Your task to perform on an android device: turn vacation reply on in the gmail app Image 0: 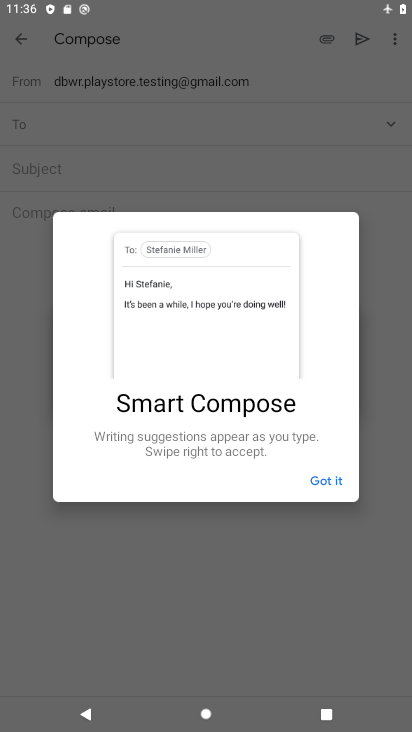
Step 0: press home button
Your task to perform on an android device: turn vacation reply on in the gmail app Image 1: 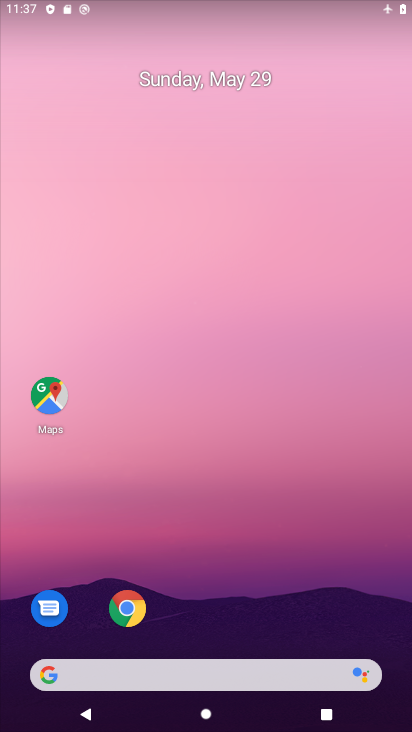
Step 1: drag from (209, 638) to (337, 68)
Your task to perform on an android device: turn vacation reply on in the gmail app Image 2: 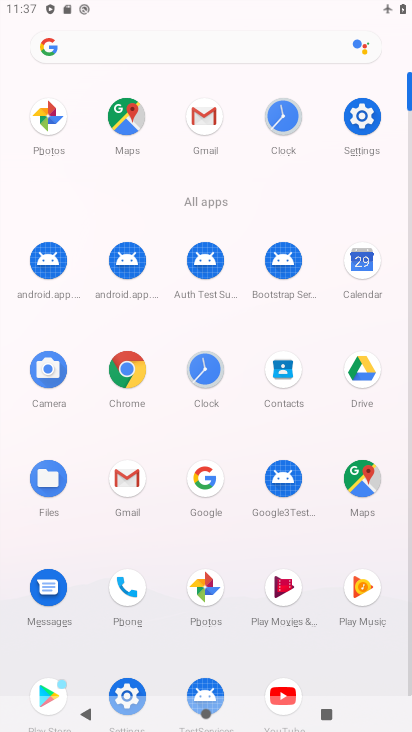
Step 2: click (120, 485)
Your task to perform on an android device: turn vacation reply on in the gmail app Image 3: 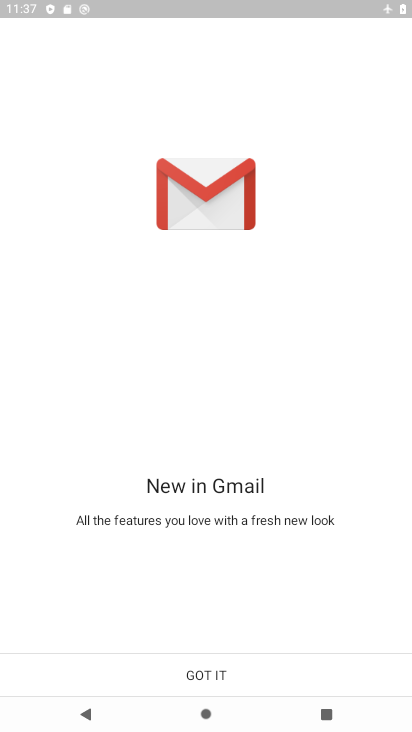
Step 3: click (148, 659)
Your task to perform on an android device: turn vacation reply on in the gmail app Image 4: 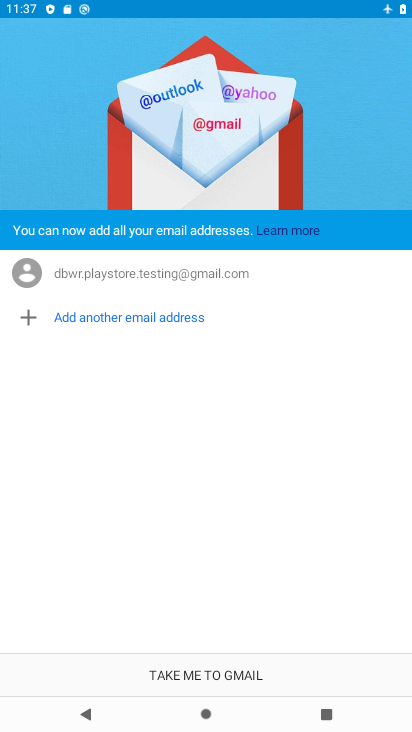
Step 4: click (237, 672)
Your task to perform on an android device: turn vacation reply on in the gmail app Image 5: 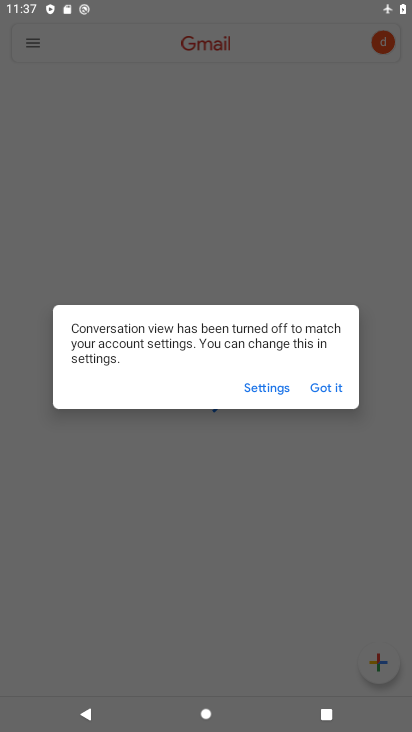
Step 5: click (335, 387)
Your task to perform on an android device: turn vacation reply on in the gmail app Image 6: 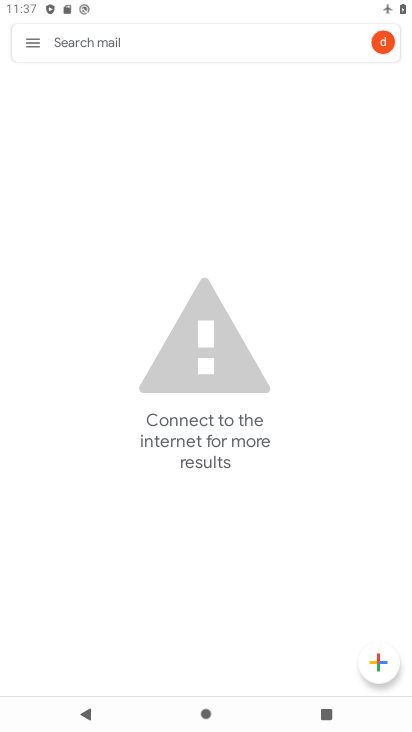
Step 6: click (26, 38)
Your task to perform on an android device: turn vacation reply on in the gmail app Image 7: 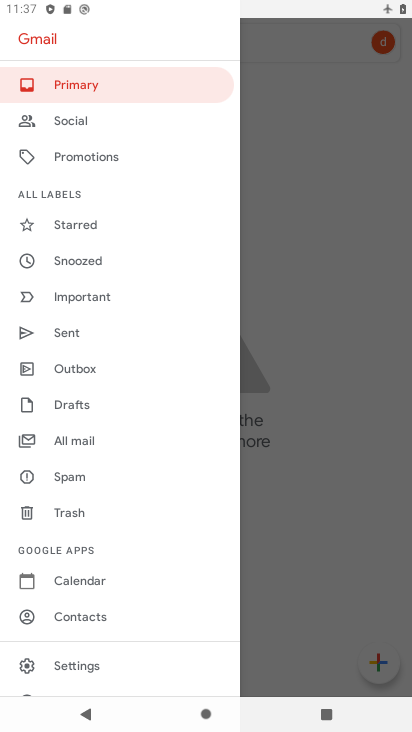
Step 7: click (75, 660)
Your task to perform on an android device: turn vacation reply on in the gmail app Image 8: 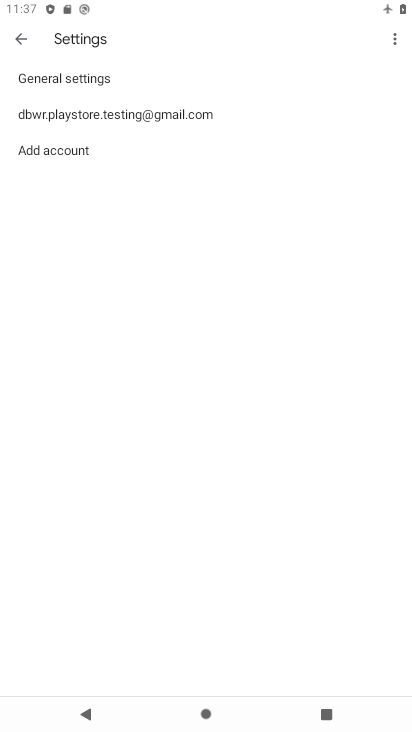
Step 8: click (60, 103)
Your task to perform on an android device: turn vacation reply on in the gmail app Image 9: 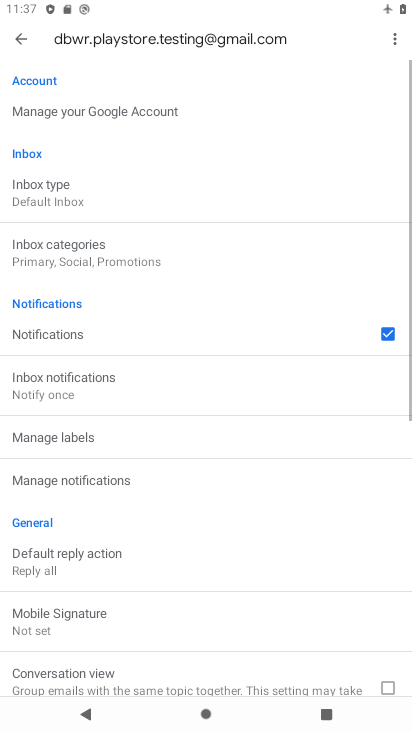
Step 9: drag from (168, 616) to (170, 221)
Your task to perform on an android device: turn vacation reply on in the gmail app Image 10: 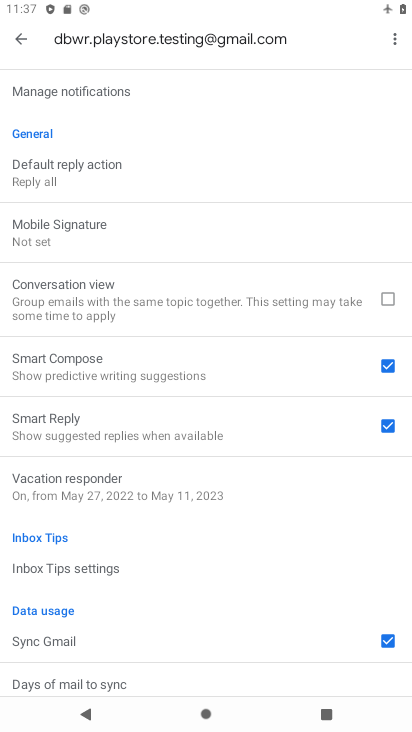
Step 10: click (163, 475)
Your task to perform on an android device: turn vacation reply on in the gmail app Image 11: 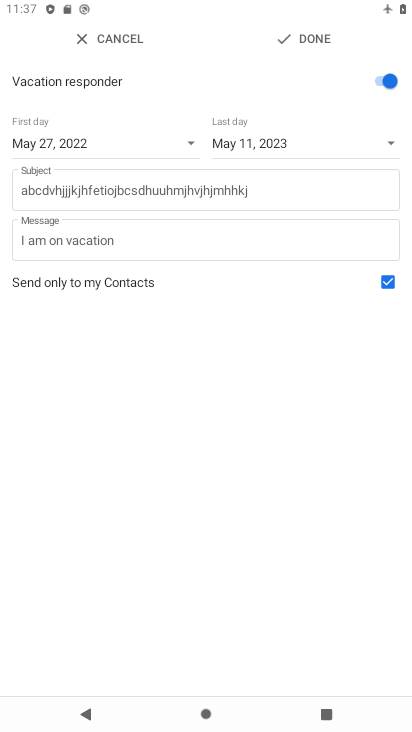
Step 11: click (309, 27)
Your task to perform on an android device: turn vacation reply on in the gmail app Image 12: 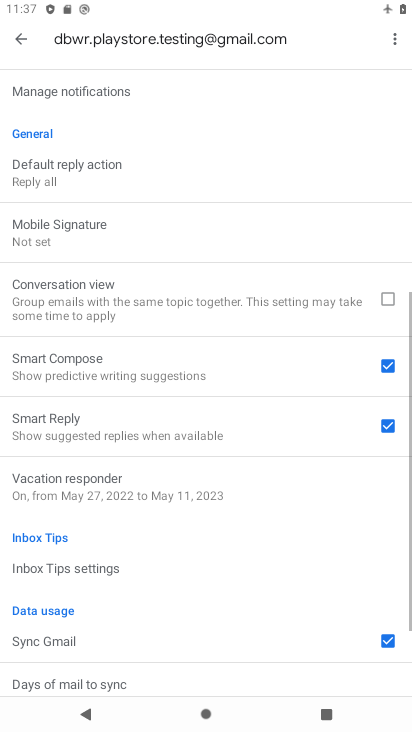
Step 12: task complete